Your task to perform on an android device: turn pop-ups off in chrome Image 0: 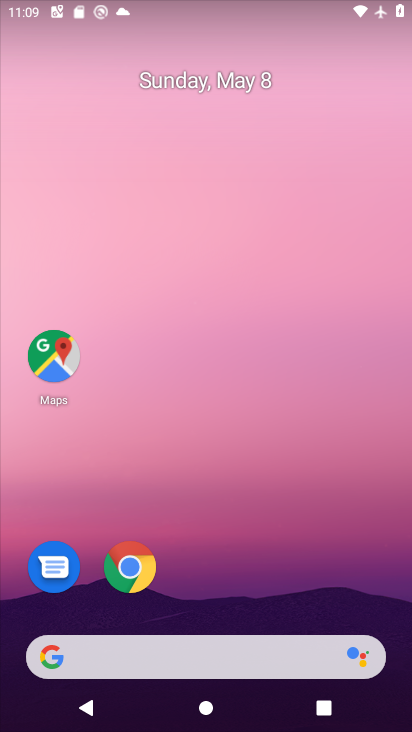
Step 0: click (118, 575)
Your task to perform on an android device: turn pop-ups off in chrome Image 1: 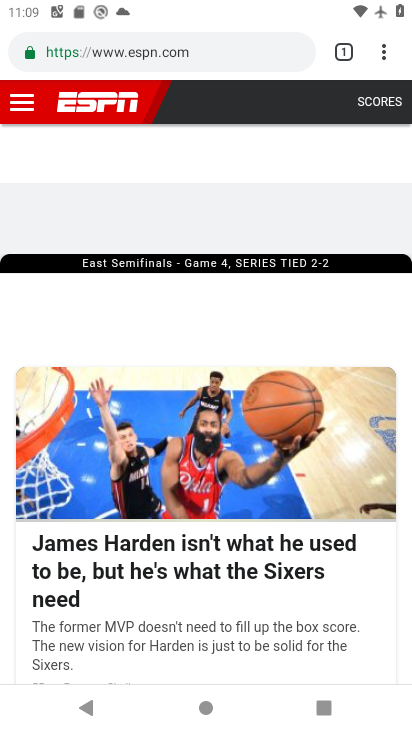
Step 1: click (379, 64)
Your task to perform on an android device: turn pop-ups off in chrome Image 2: 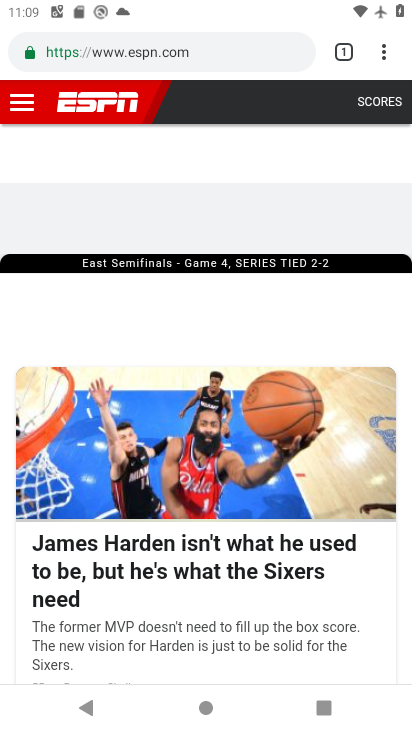
Step 2: click (390, 49)
Your task to perform on an android device: turn pop-ups off in chrome Image 3: 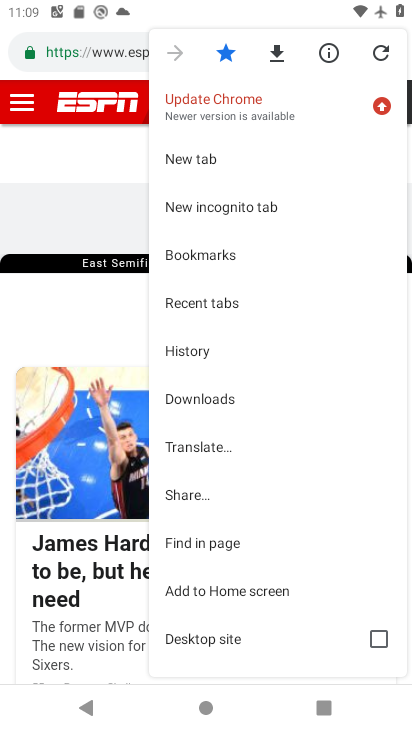
Step 3: drag from (343, 569) to (410, 135)
Your task to perform on an android device: turn pop-ups off in chrome Image 4: 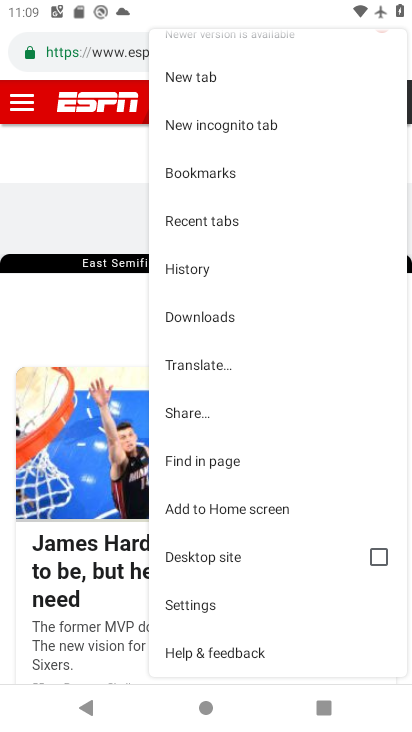
Step 4: click (206, 608)
Your task to perform on an android device: turn pop-ups off in chrome Image 5: 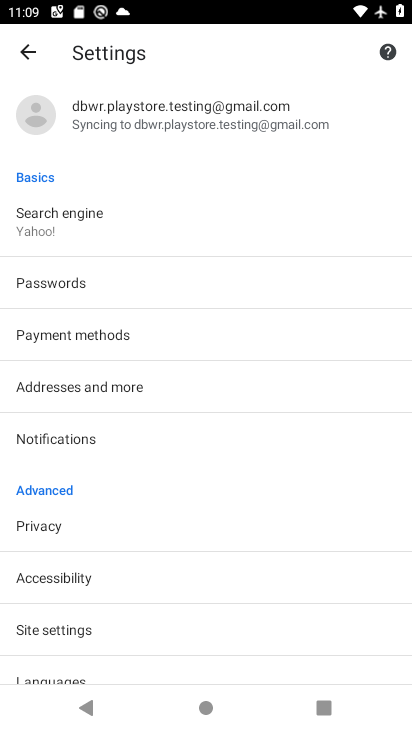
Step 5: click (82, 621)
Your task to perform on an android device: turn pop-ups off in chrome Image 6: 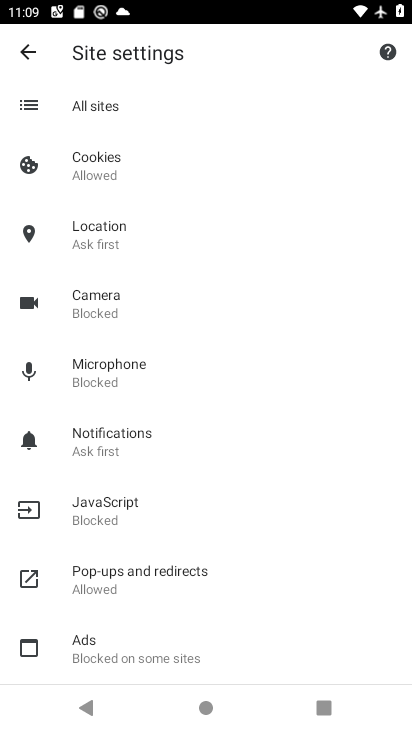
Step 6: click (127, 593)
Your task to perform on an android device: turn pop-ups off in chrome Image 7: 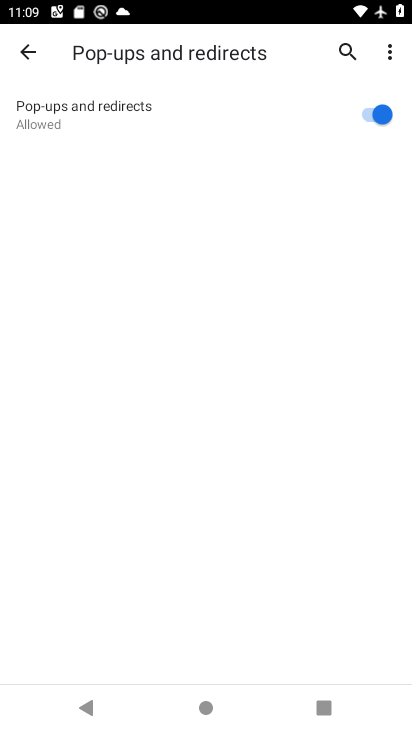
Step 7: click (370, 115)
Your task to perform on an android device: turn pop-ups off in chrome Image 8: 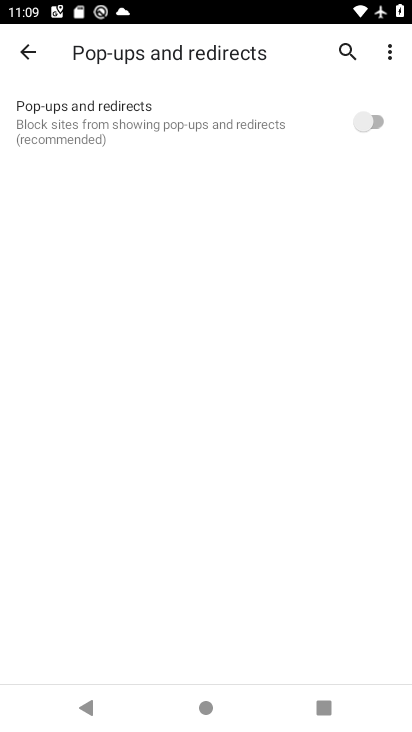
Step 8: task complete